Your task to perform on an android device: change notification settings in the gmail app Image 0: 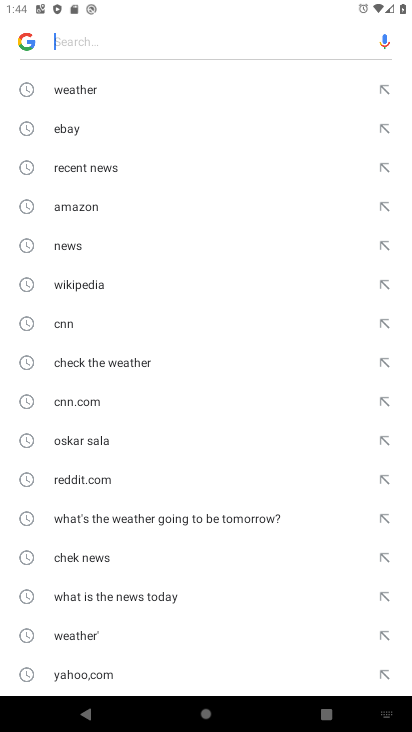
Step 0: press home button
Your task to perform on an android device: change notification settings in the gmail app Image 1: 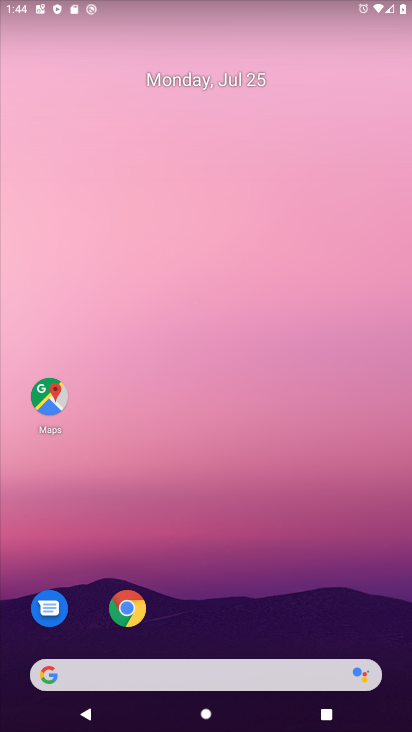
Step 1: drag from (278, 619) to (282, 136)
Your task to perform on an android device: change notification settings in the gmail app Image 2: 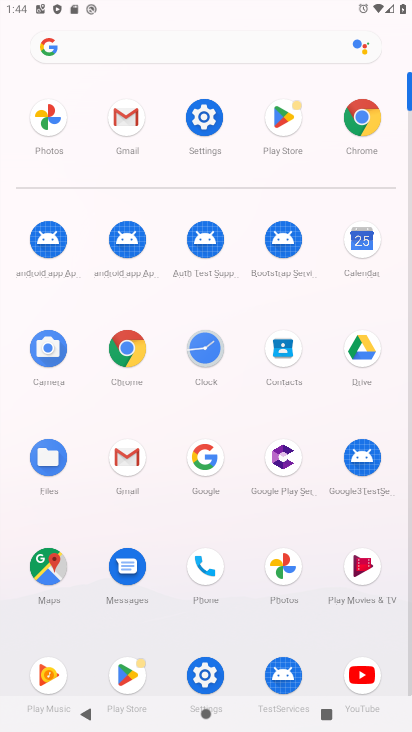
Step 2: click (133, 119)
Your task to perform on an android device: change notification settings in the gmail app Image 3: 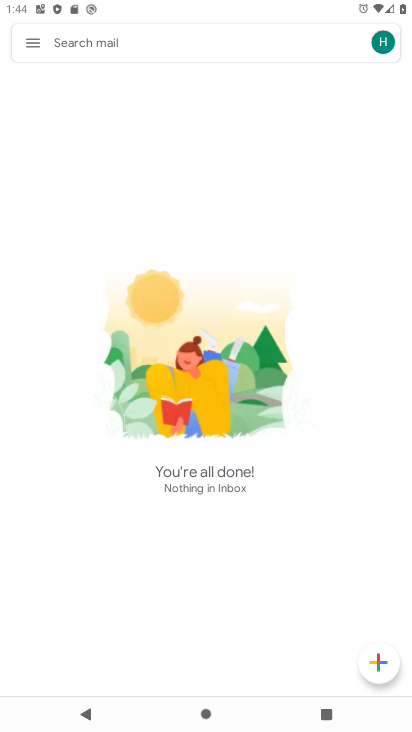
Step 3: click (34, 41)
Your task to perform on an android device: change notification settings in the gmail app Image 4: 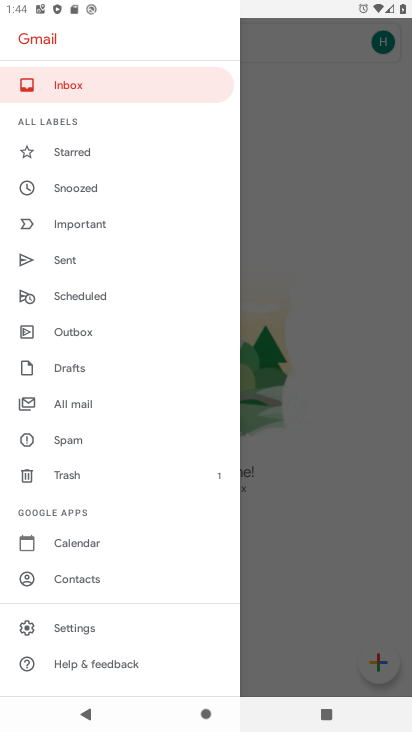
Step 4: click (87, 628)
Your task to perform on an android device: change notification settings in the gmail app Image 5: 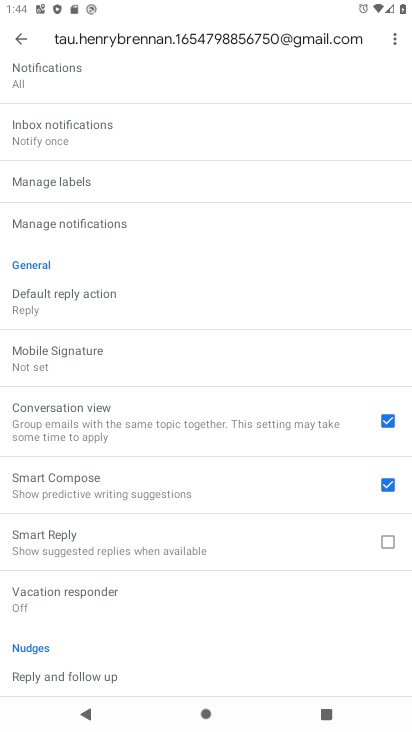
Step 5: click (85, 225)
Your task to perform on an android device: change notification settings in the gmail app Image 6: 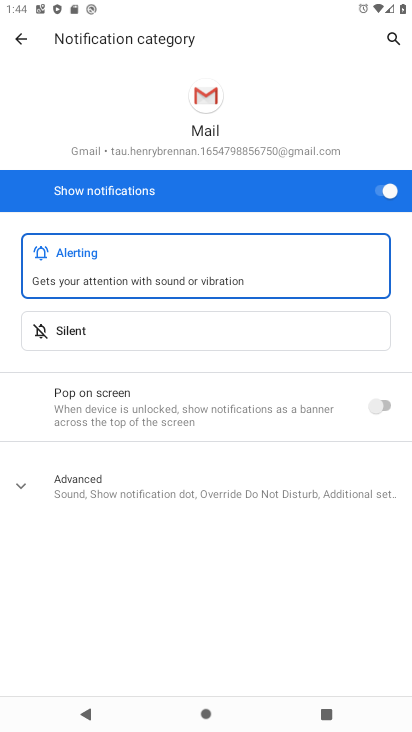
Step 6: click (387, 184)
Your task to perform on an android device: change notification settings in the gmail app Image 7: 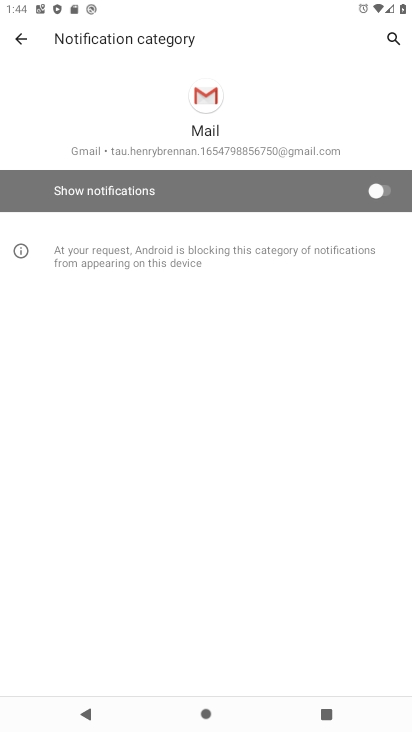
Step 7: task complete